Your task to perform on an android device: delete a single message in the gmail app Image 0: 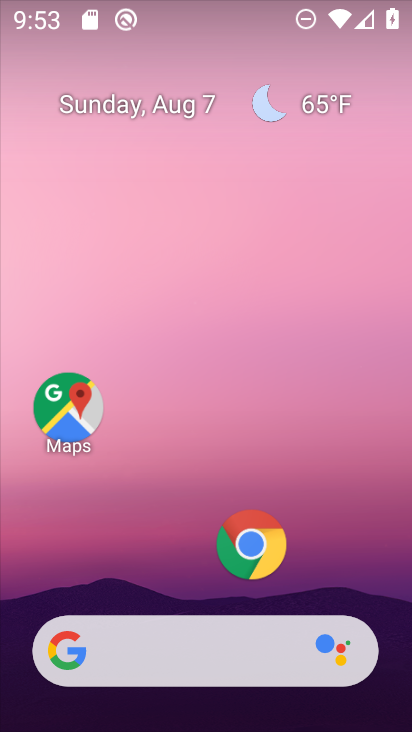
Step 0: drag from (255, 609) to (287, 36)
Your task to perform on an android device: delete a single message in the gmail app Image 1: 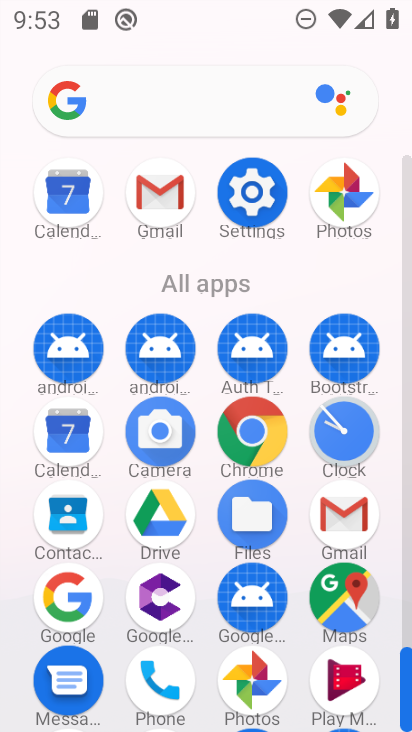
Step 1: click (338, 528)
Your task to perform on an android device: delete a single message in the gmail app Image 2: 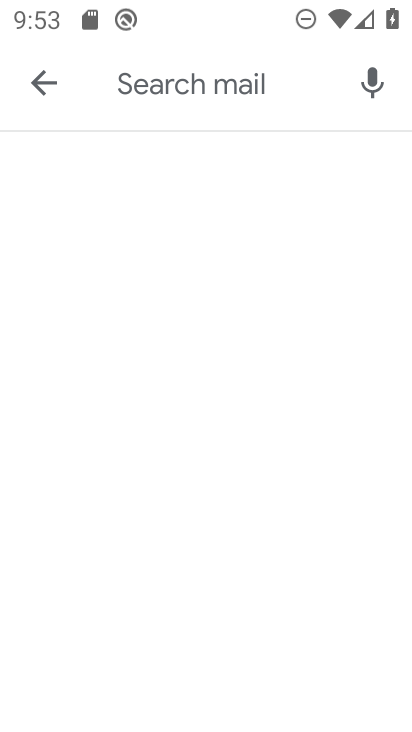
Step 2: click (33, 76)
Your task to perform on an android device: delete a single message in the gmail app Image 3: 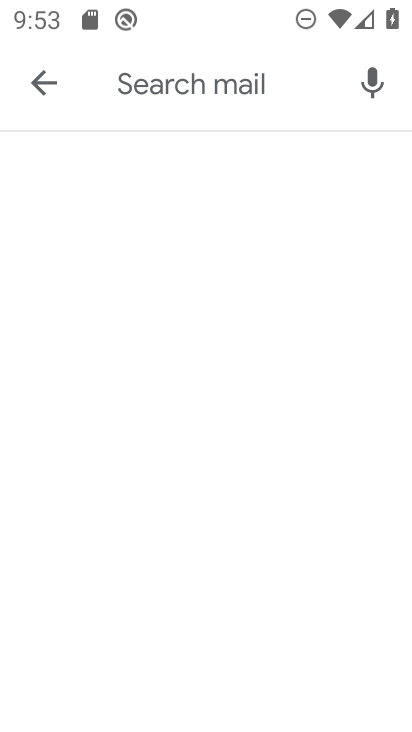
Step 3: click (23, 95)
Your task to perform on an android device: delete a single message in the gmail app Image 4: 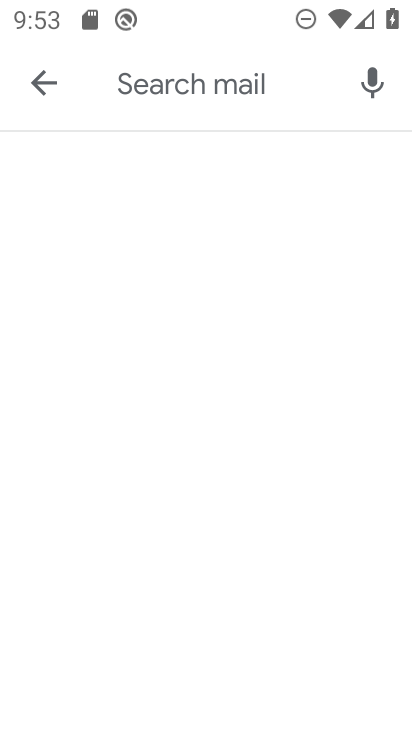
Step 4: click (22, 93)
Your task to perform on an android device: delete a single message in the gmail app Image 5: 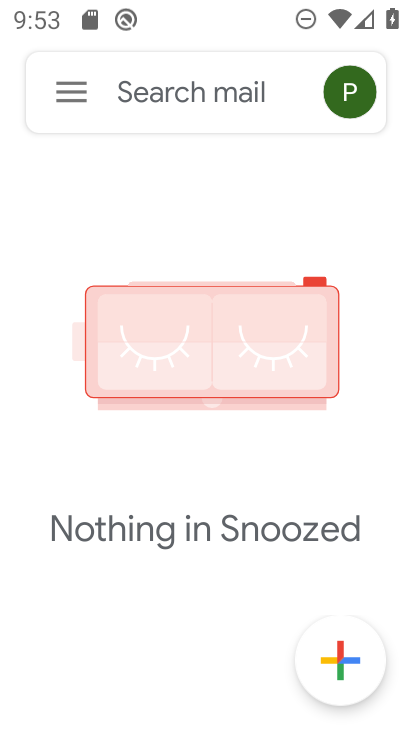
Step 5: press back button
Your task to perform on an android device: delete a single message in the gmail app Image 6: 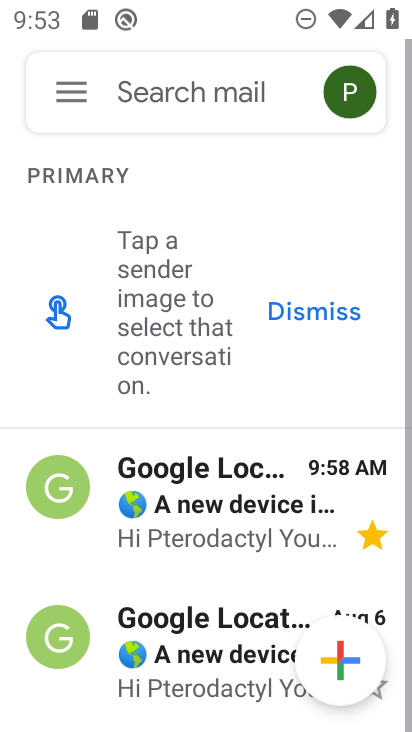
Step 6: click (147, 457)
Your task to perform on an android device: delete a single message in the gmail app Image 7: 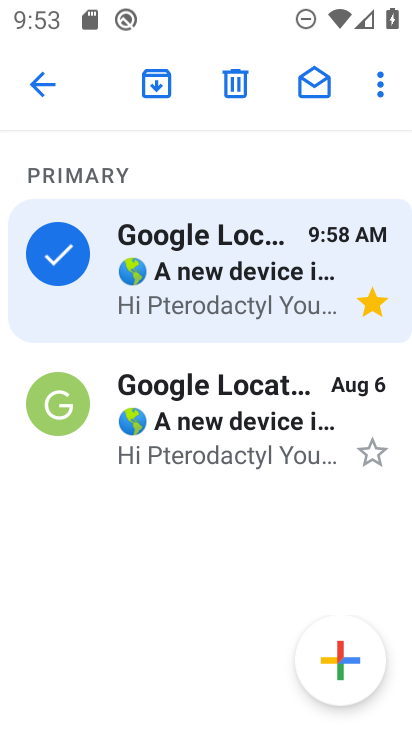
Step 7: click (233, 77)
Your task to perform on an android device: delete a single message in the gmail app Image 8: 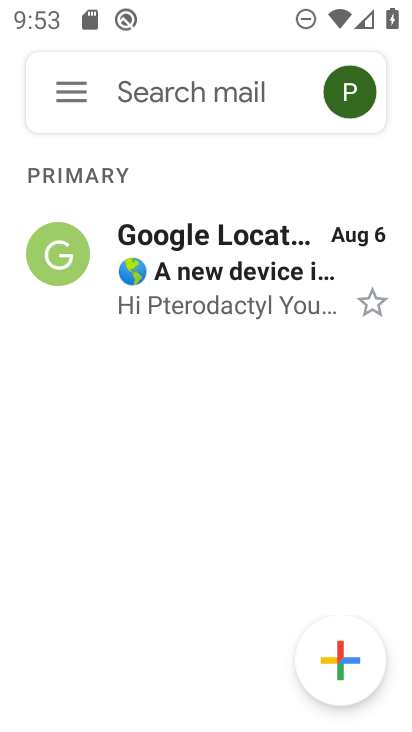
Step 8: task complete